Your task to perform on an android device: open app "WhatsApp Messenger" (install if not already installed) Image 0: 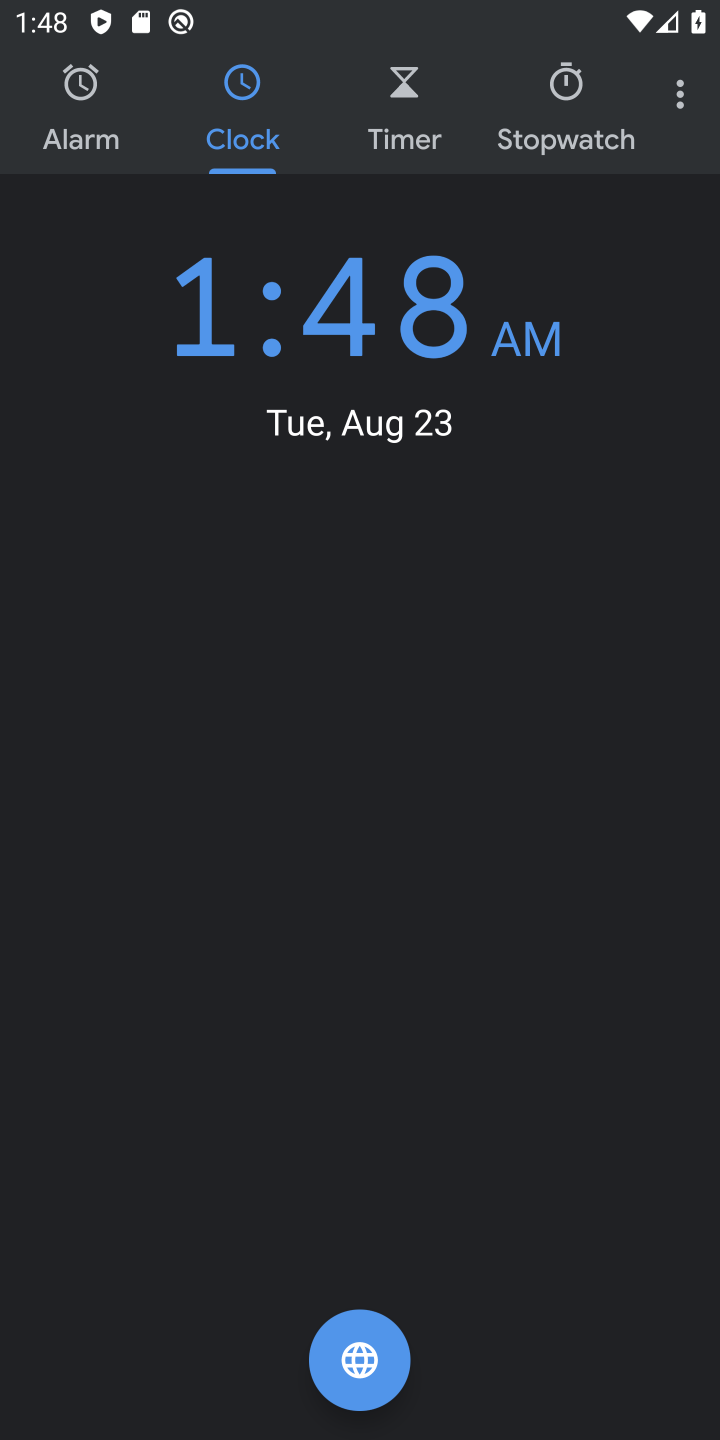
Step 0: press back button
Your task to perform on an android device: open app "WhatsApp Messenger" (install if not already installed) Image 1: 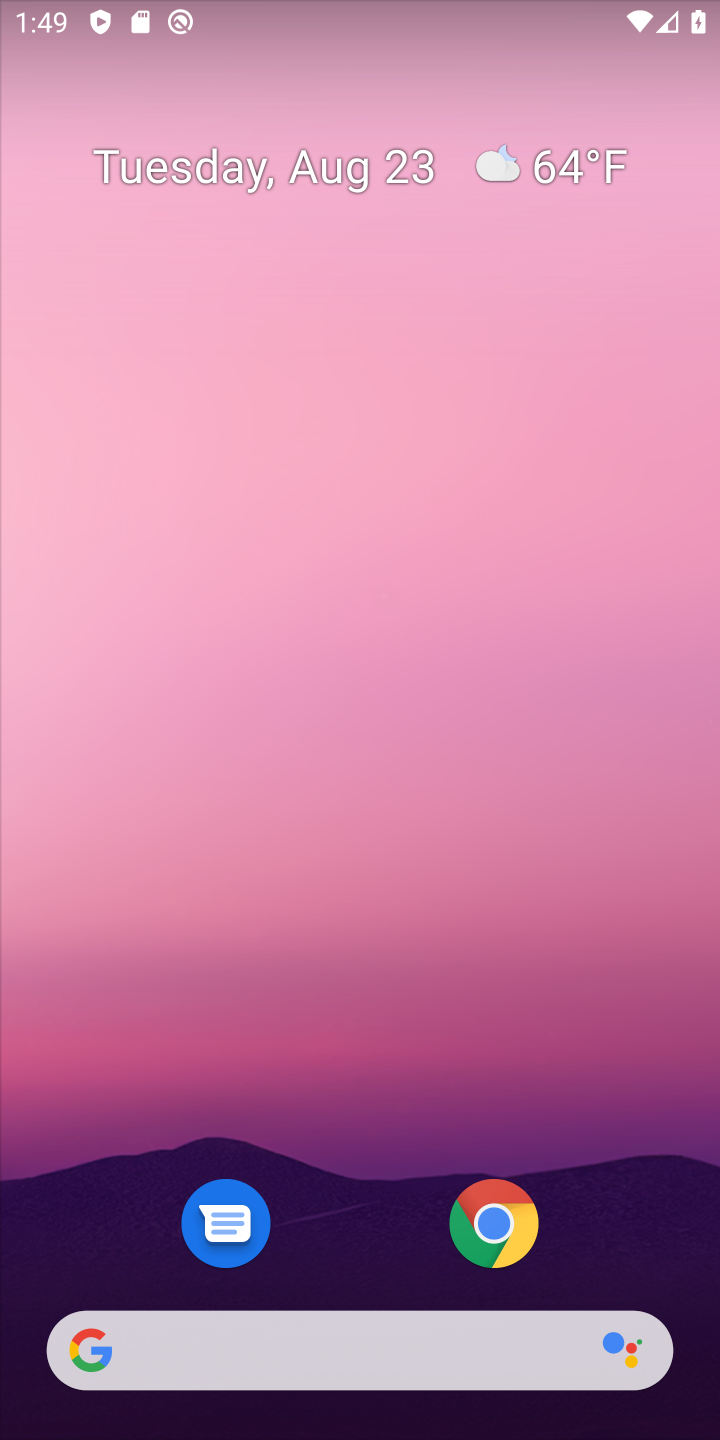
Step 1: drag from (383, 1099) to (473, 272)
Your task to perform on an android device: open app "WhatsApp Messenger" (install if not already installed) Image 2: 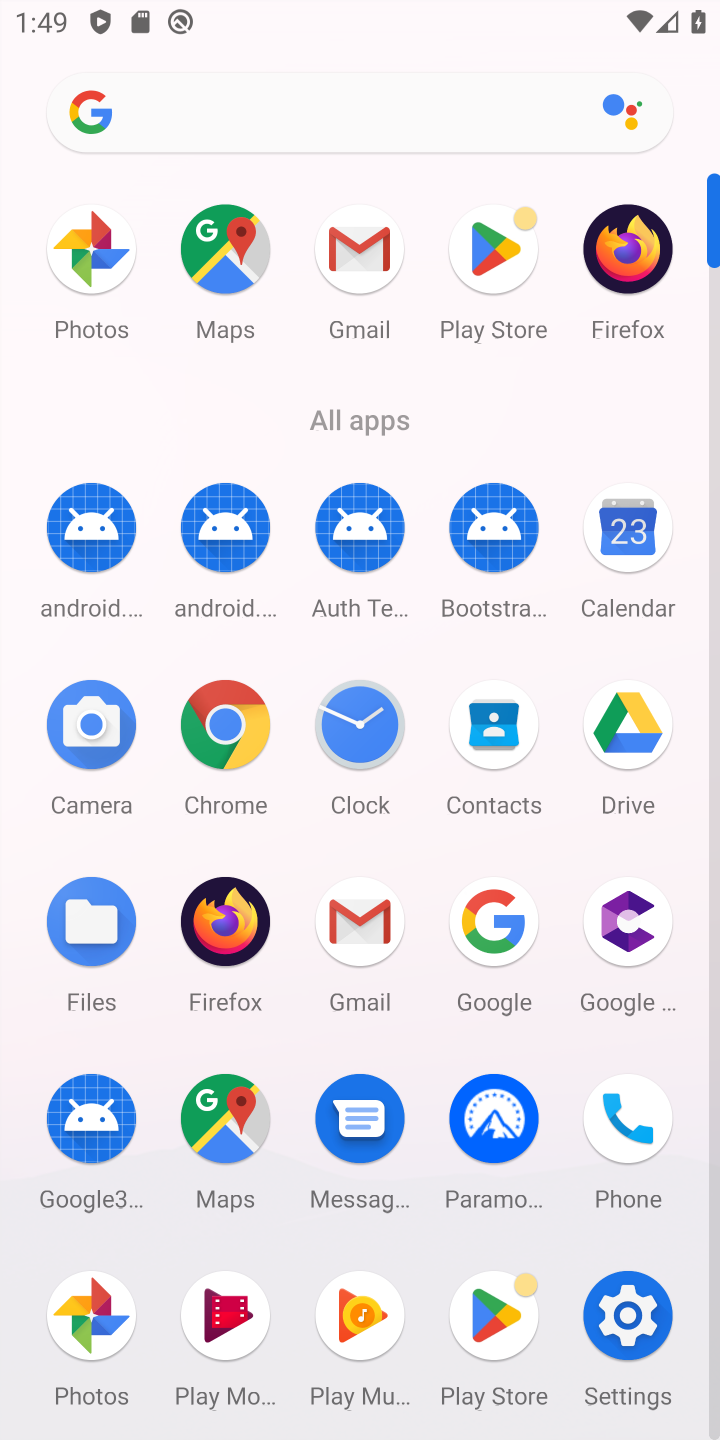
Step 2: click (486, 241)
Your task to perform on an android device: open app "WhatsApp Messenger" (install if not already installed) Image 3: 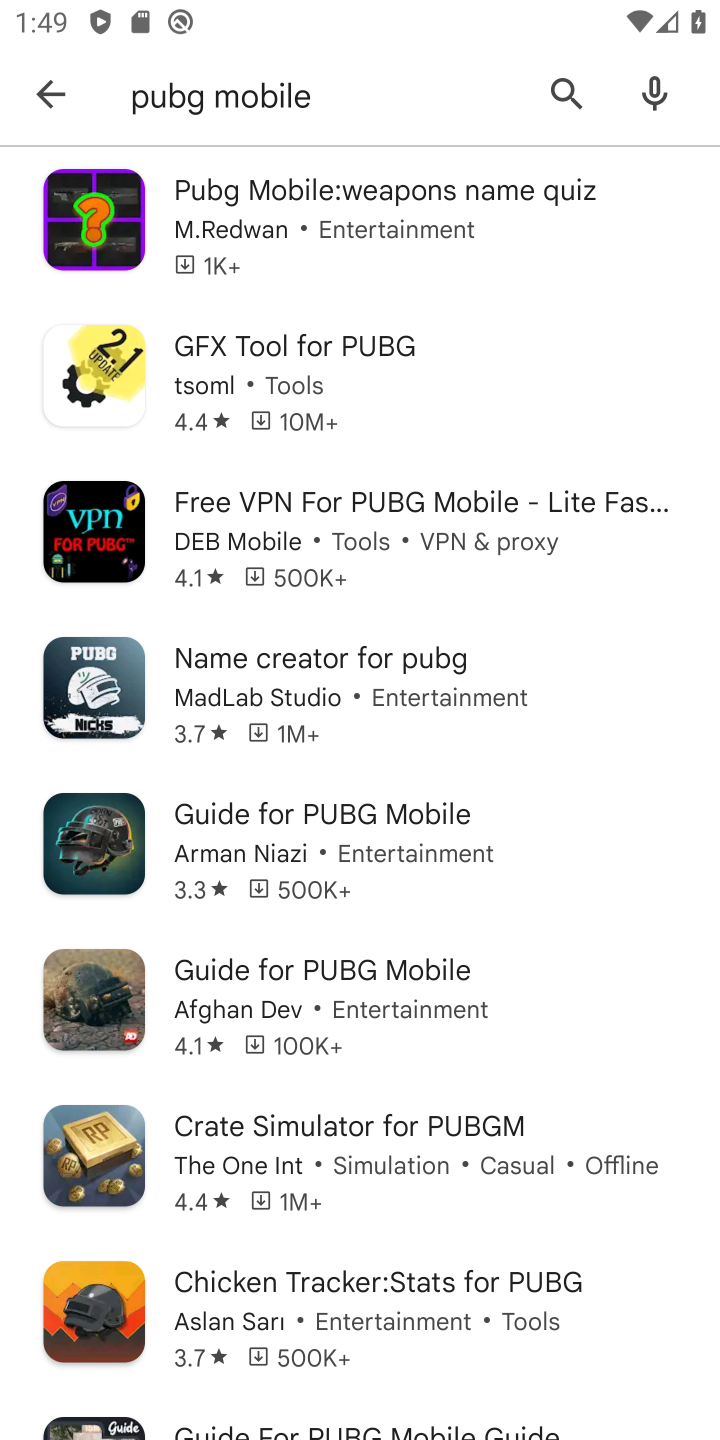
Step 3: click (576, 84)
Your task to perform on an android device: open app "WhatsApp Messenger" (install if not already installed) Image 4: 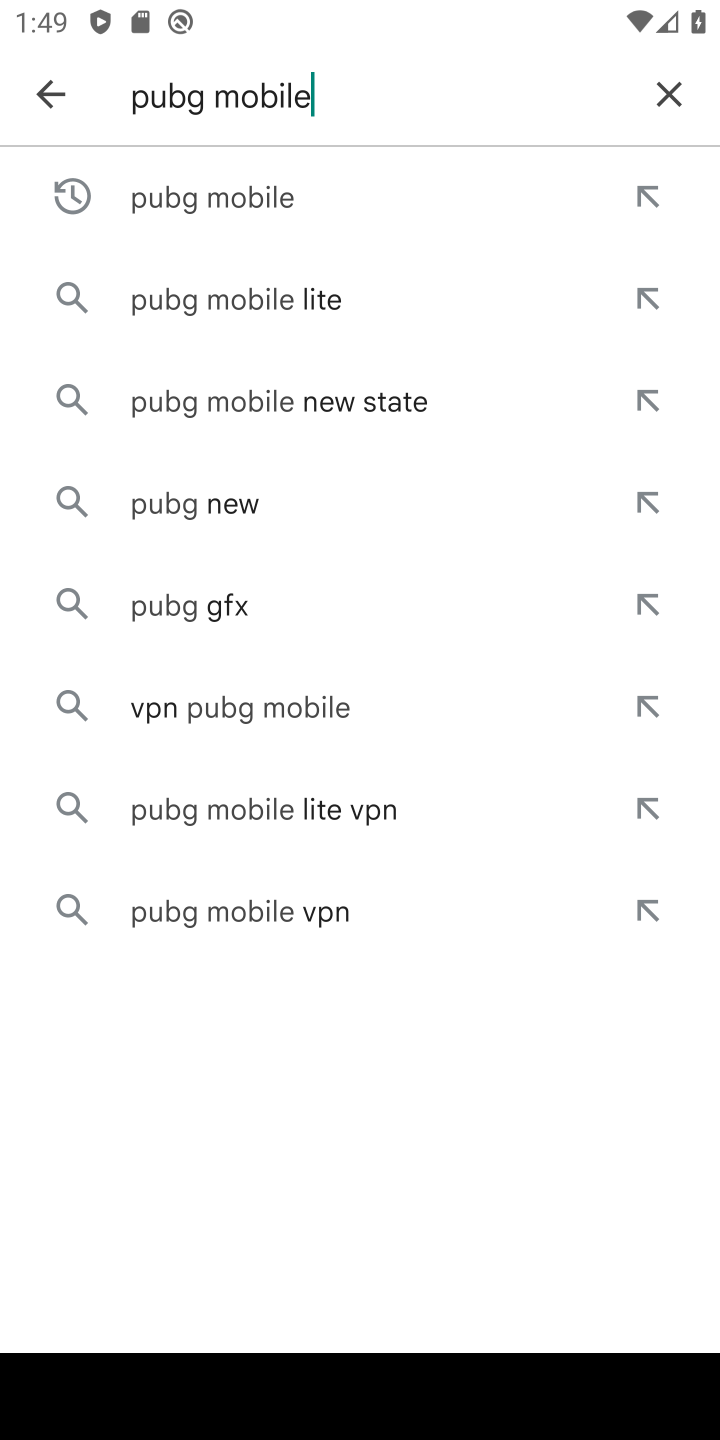
Step 4: click (660, 93)
Your task to perform on an android device: open app "WhatsApp Messenger" (install if not already installed) Image 5: 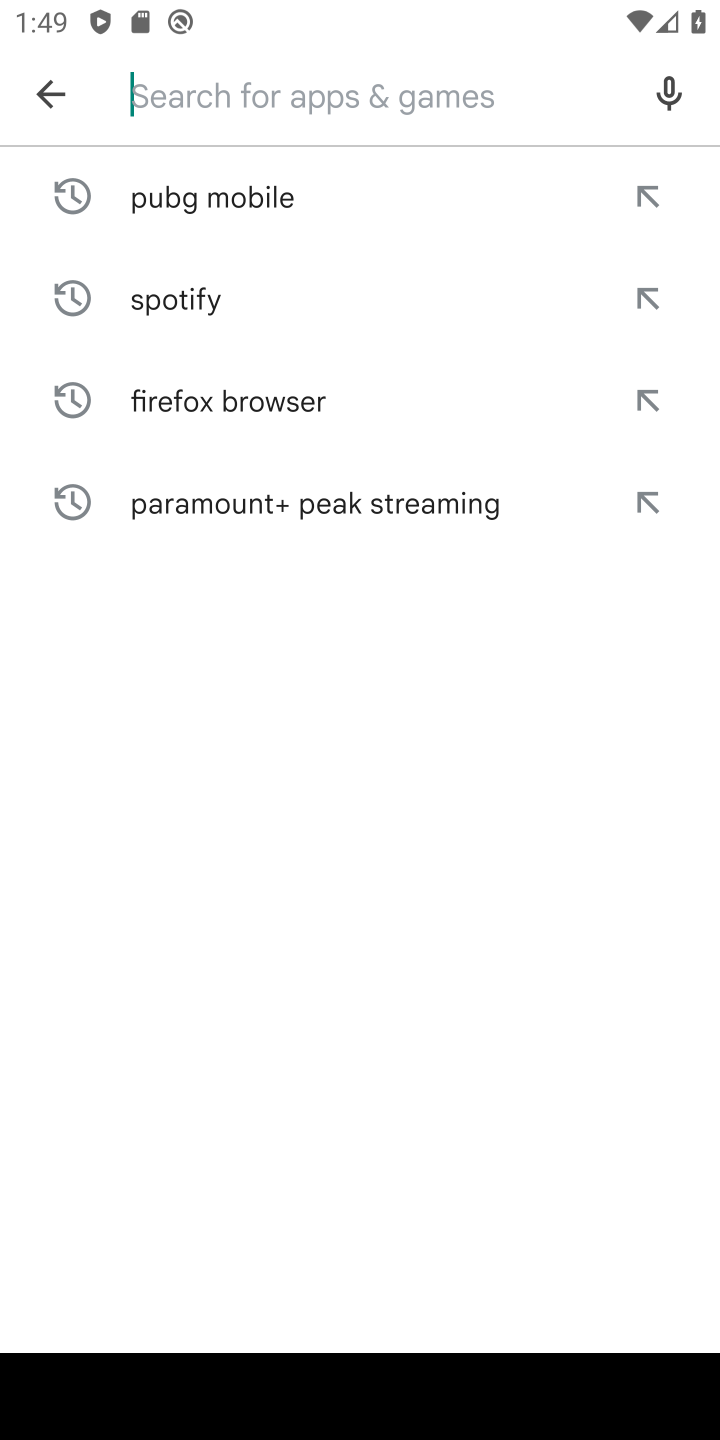
Step 5: click (200, 110)
Your task to perform on an android device: open app "WhatsApp Messenger" (install if not already installed) Image 6: 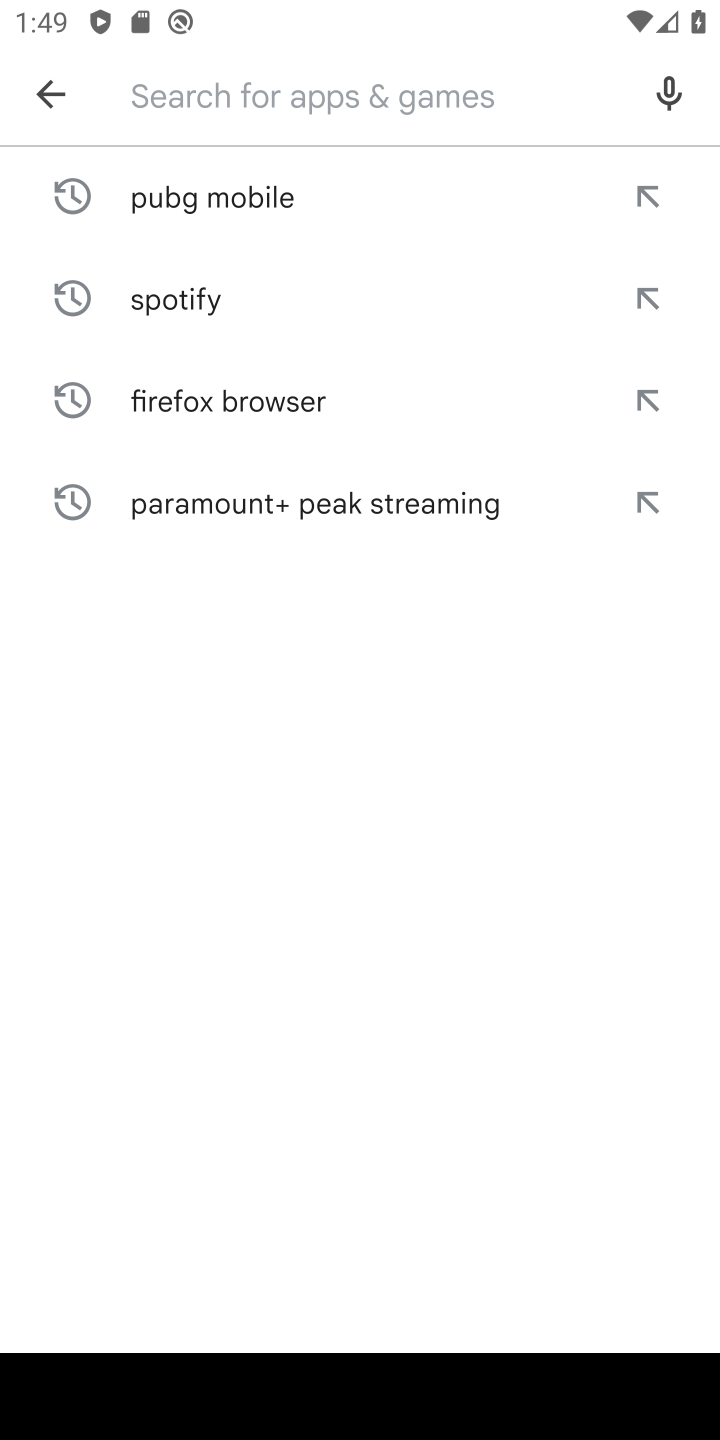
Step 6: type "WhatsApp Messenger"
Your task to perform on an android device: open app "WhatsApp Messenger" (install if not already installed) Image 7: 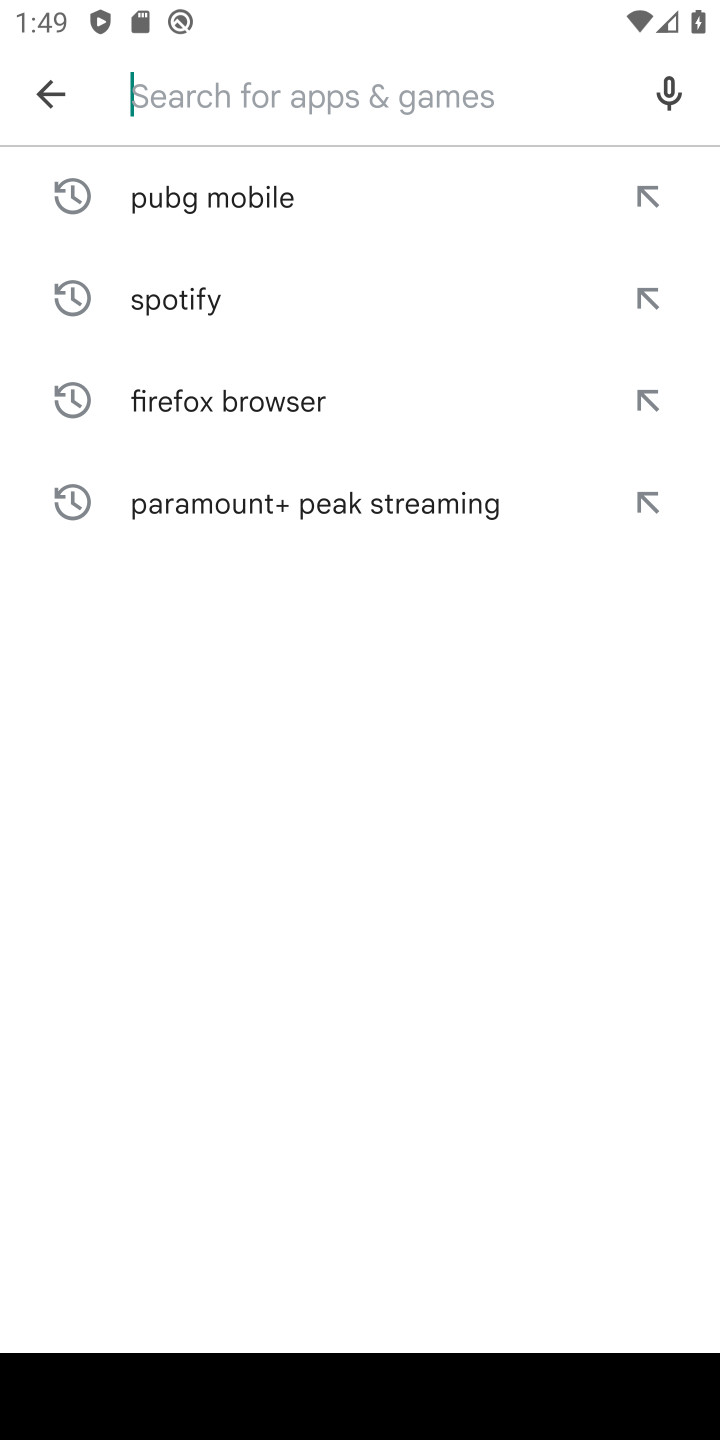
Step 7: click (375, 1103)
Your task to perform on an android device: open app "WhatsApp Messenger" (install if not already installed) Image 8: 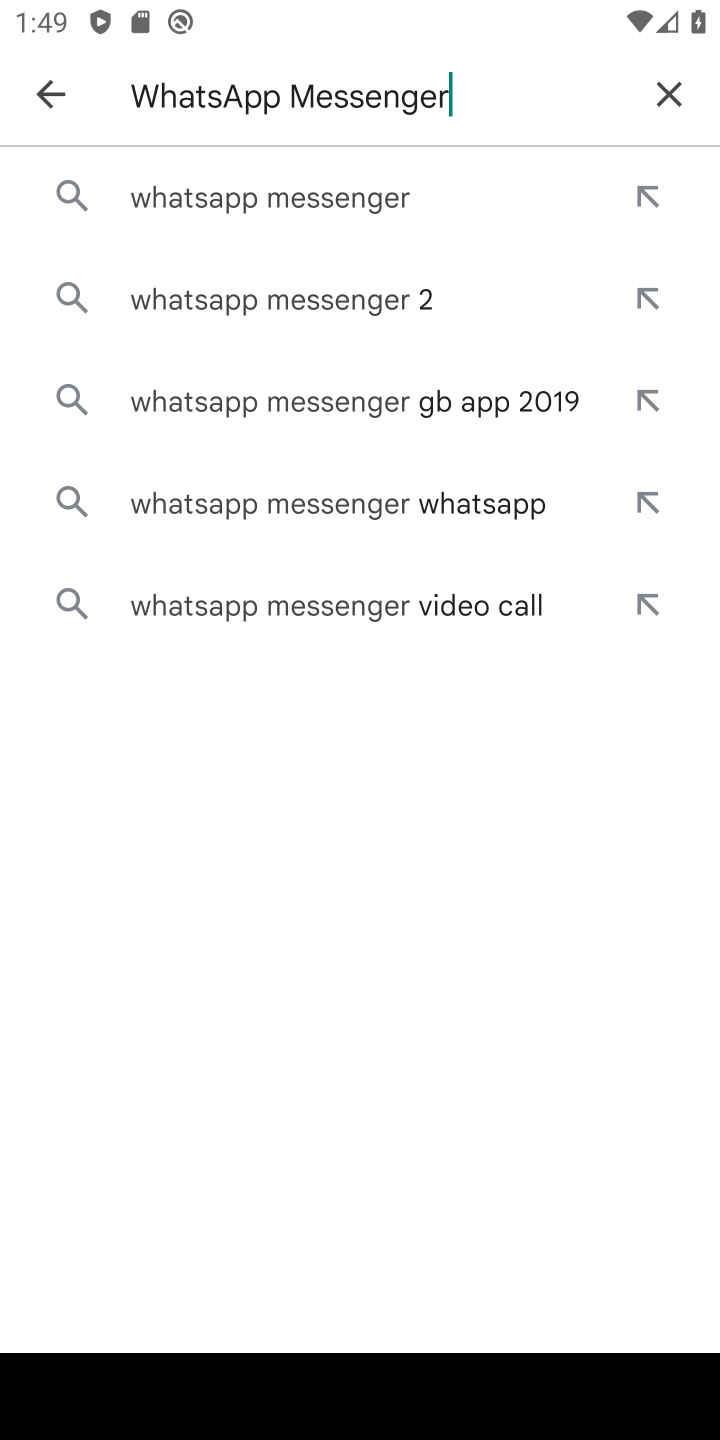
Step 8: click (350, 189)
Your task to perform on an android device: open app "WhatsApp Messenger" (install if not already installed) Image 9: 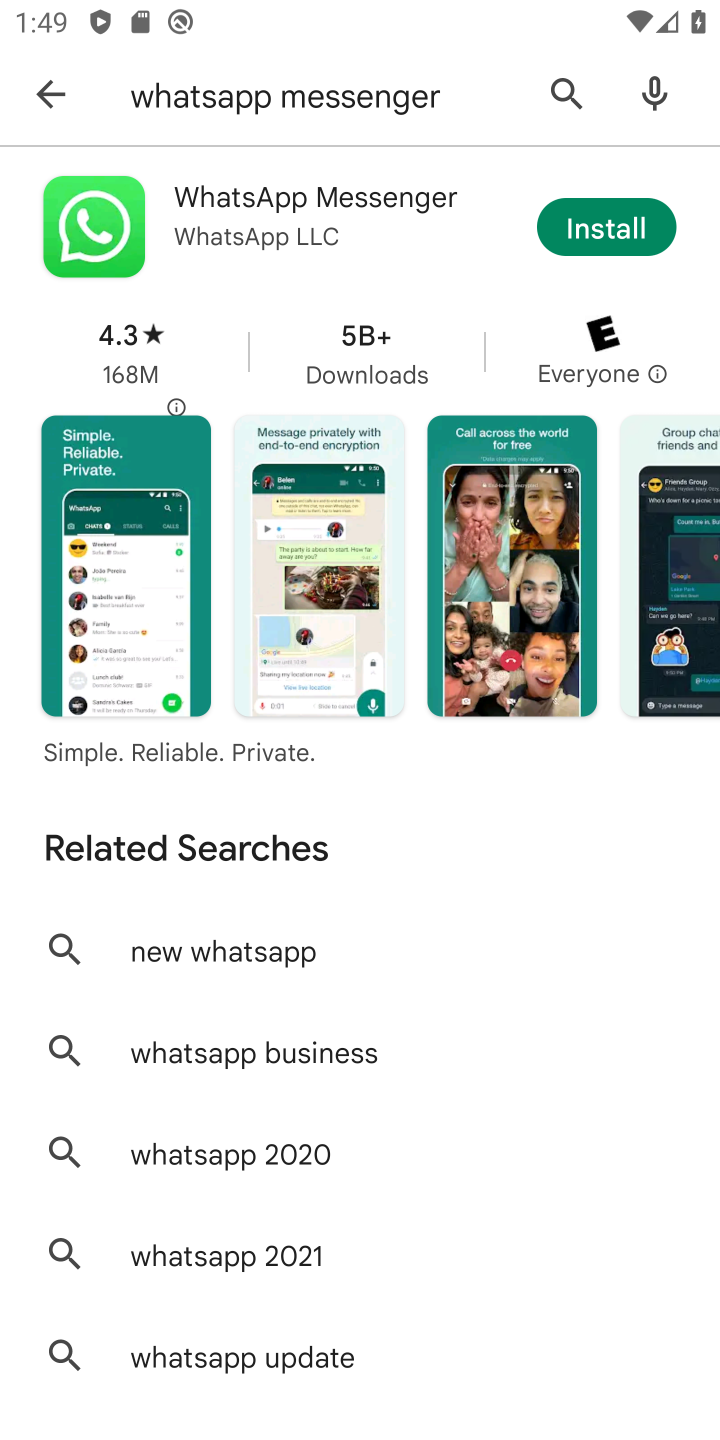
Step 9: click (602, 233)
Your task to perform on an android device: open app "WhatsApp Messenger" (install if not already installed) Image 10: 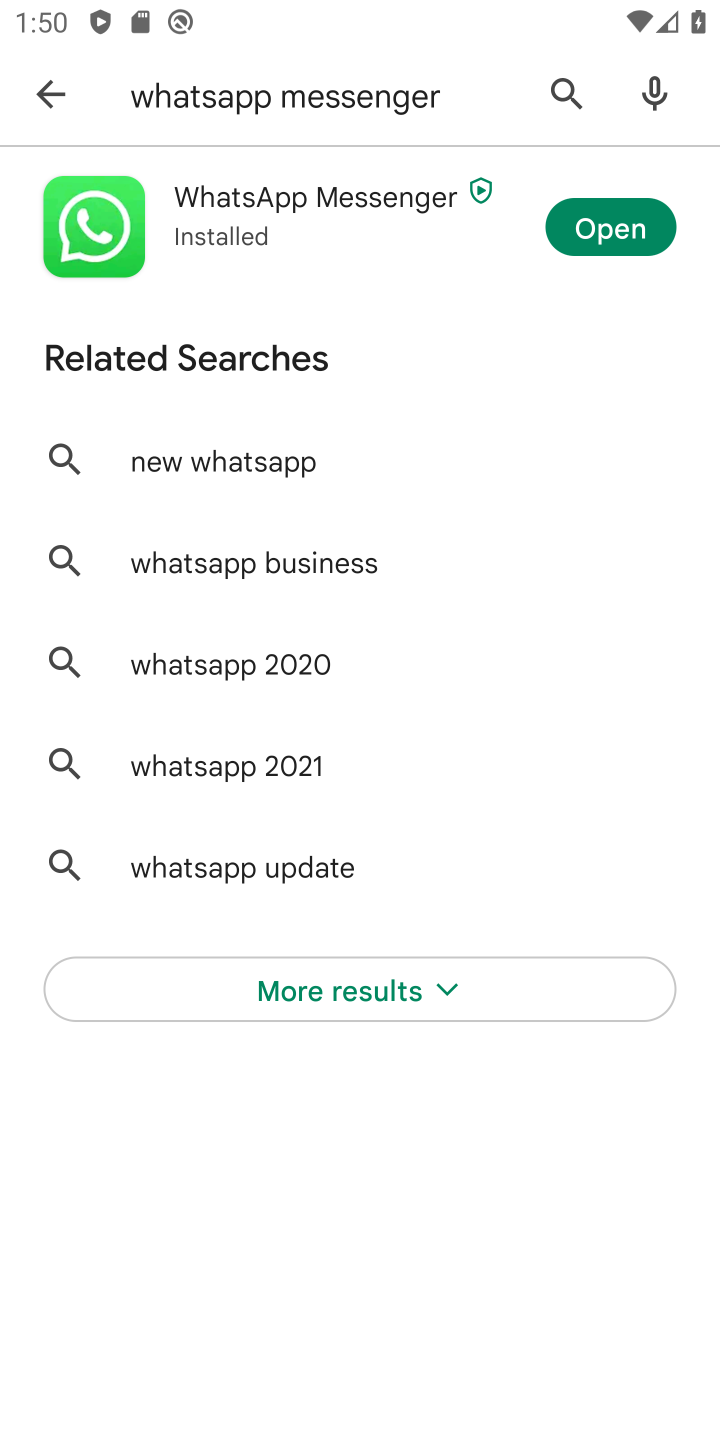
Step 10: click (625, 216)
Your task to perform on an android device: open app "WhatsApp Messenger" (install if not already installed) Image 11: 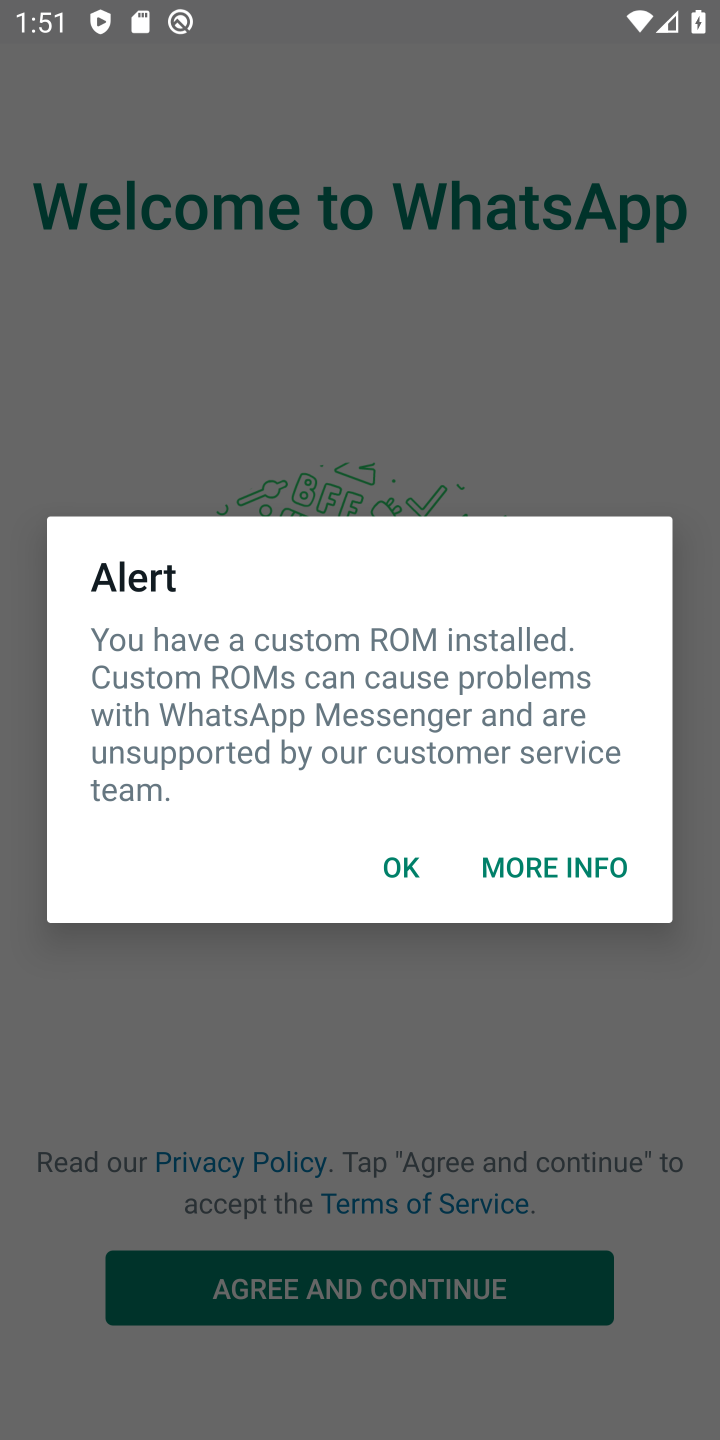
Step 11: press back button
Your task to perform on an android device: open app "WhatsApp Messenger" (install if not already installed) Image 12: 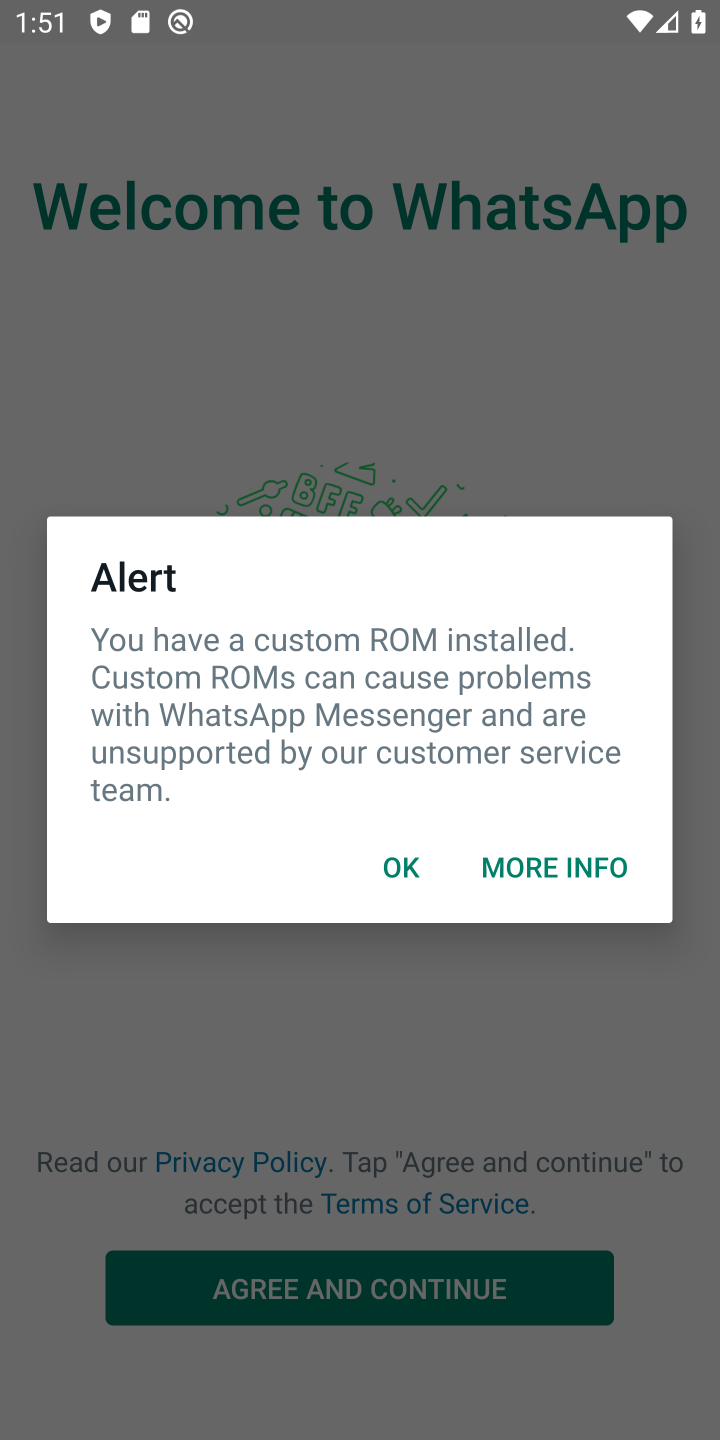
Step 12: click (404, 876)
Your task to perform on an android device: open app "WhatsApp Messenger" (install if not already installed) Image 13: 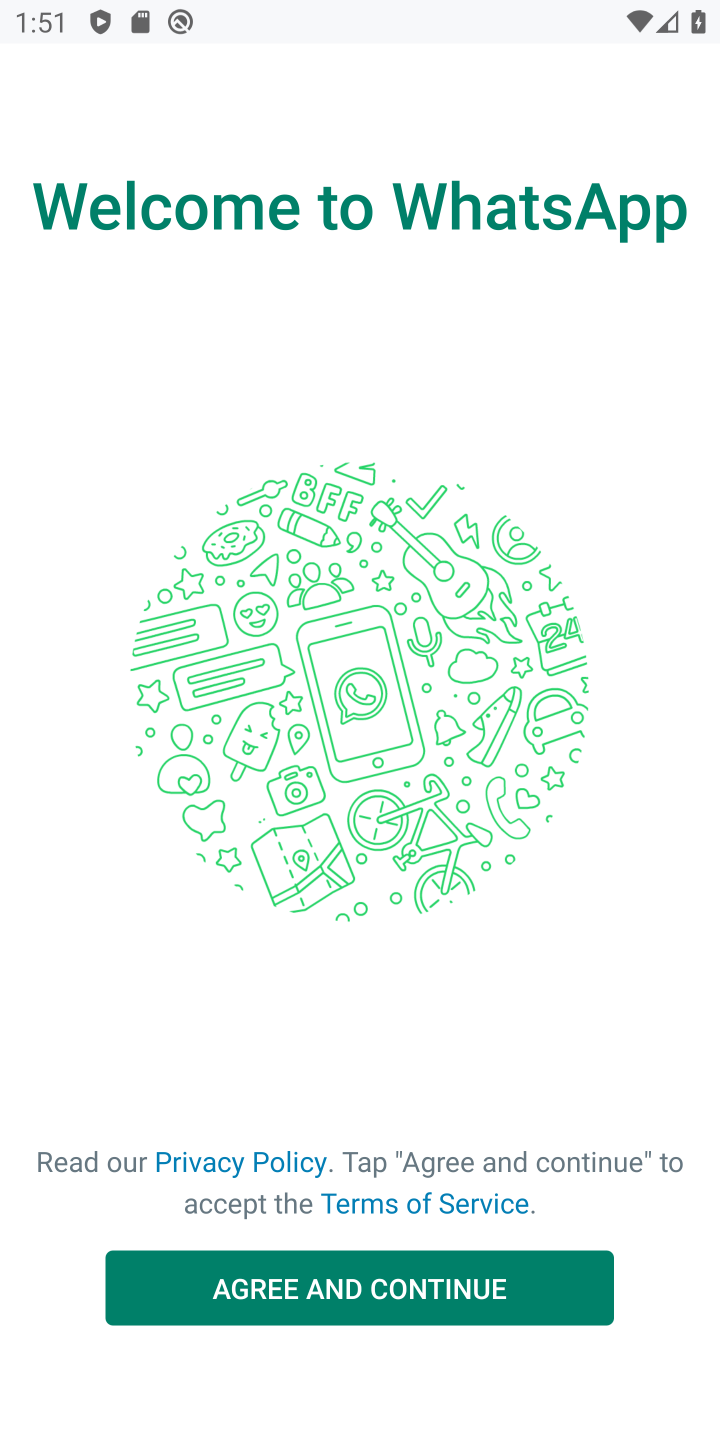
Step 13: task complete